Your task to perform on an android device: Turn off the flashlight Image 0: 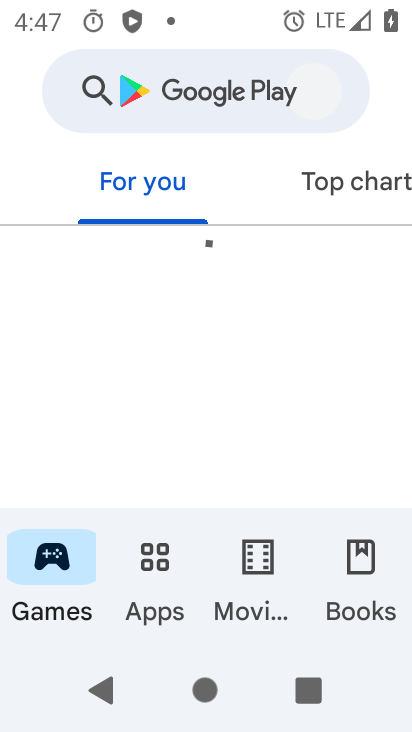
Step 0: press home button
Your task to perform on an android device: Turn off the flashlight Image 1: 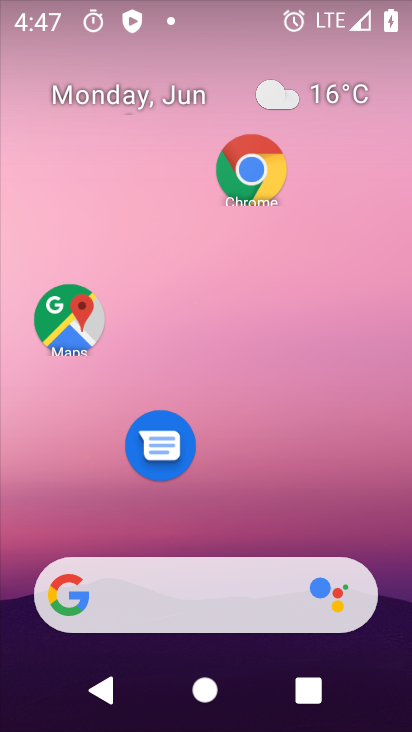
Step 1: drag from (188, 545) to (230, 182)
Your task to perform on an android device: Turn off the flashlight Image 2: 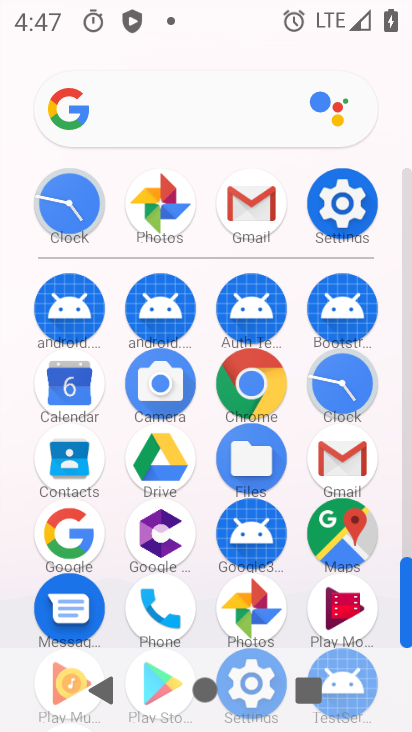
Step 2: click (345, 217)
Your task to perform on an android device: Turn off the flashlight Image 3: 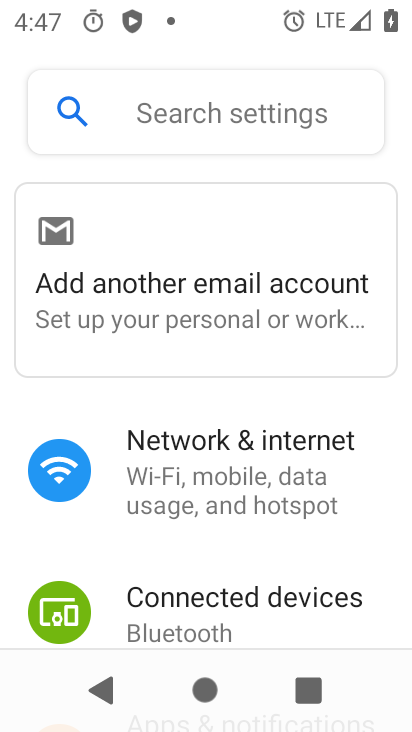
Step 3: task complete